Your task to perform on an android device: check google app version Image 0: 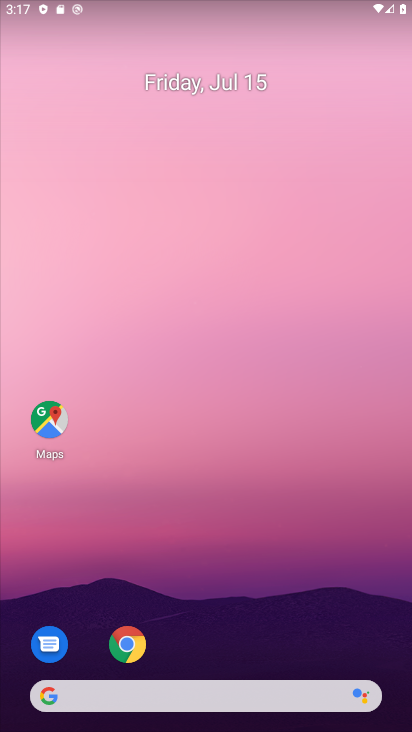
Step 0: drag from (213, 683) to (274, 107)
Your task to perform on an android device: check google app version Image 1: 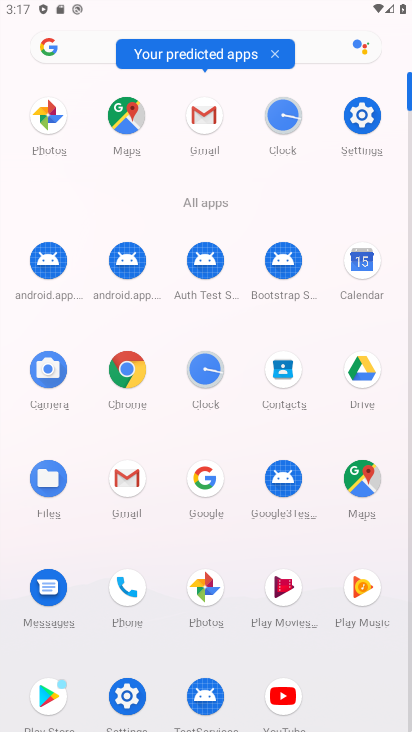
Step 1: drag from (135, 591) to (168, 340)
Your task to perform on an android device: check google app version Image 2: 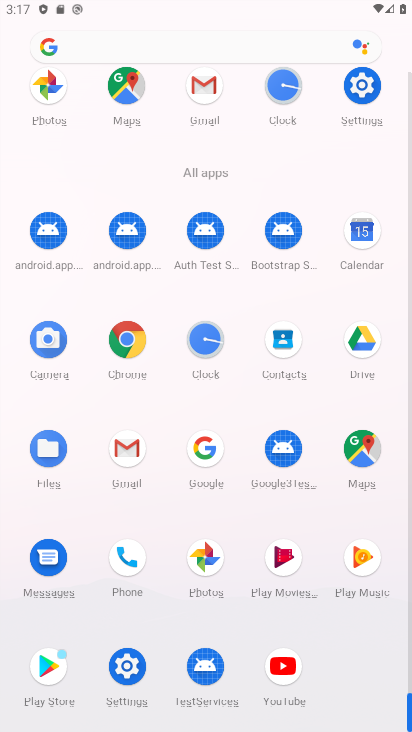
Step 2: click (129, 654)
Your task to perform on an android device: check google app version Image 3: 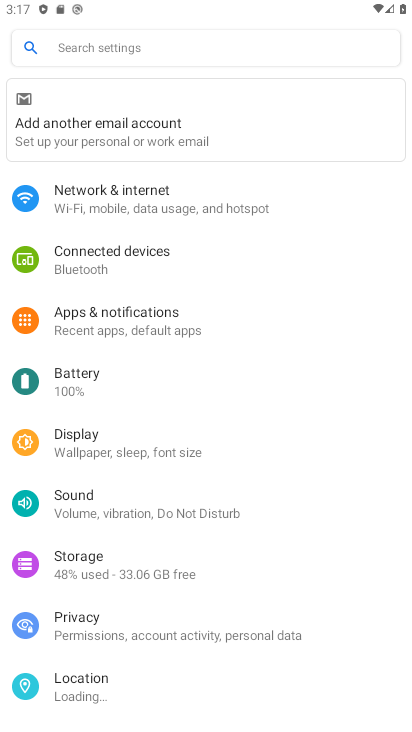
Step 3: click (119, 324)
Your task to perform on an android device: check google app version Image 4: 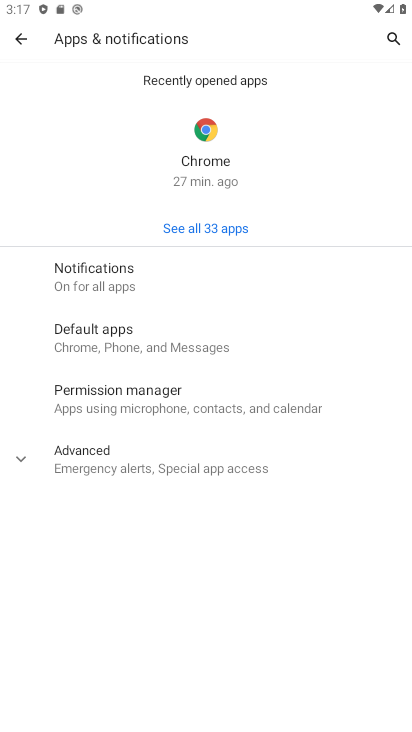
Step 4: click (197, 224)
Your task to perform on an android device: check google app version Image 5: 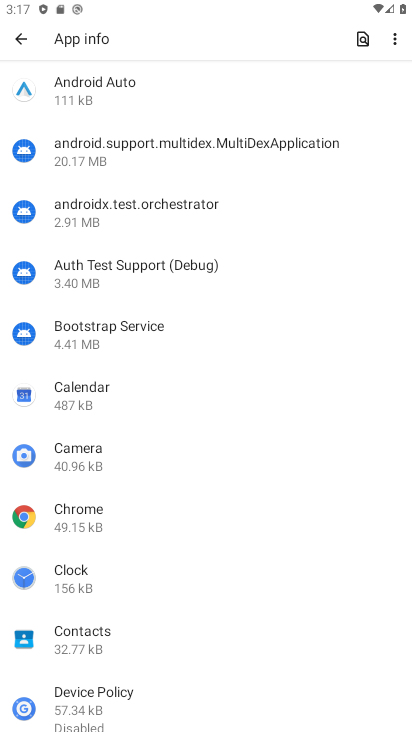
Step 5: drag from (126, 538) to (214, 143)
Your task to perform on an android device: check google app version Image 6: 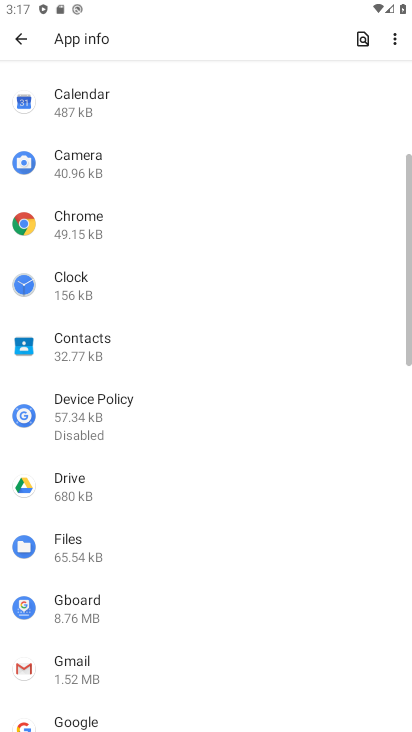
Step 6: drag from (127, 613) to (212, 153)
Your task to perform on an android device: check google app version Image 7: 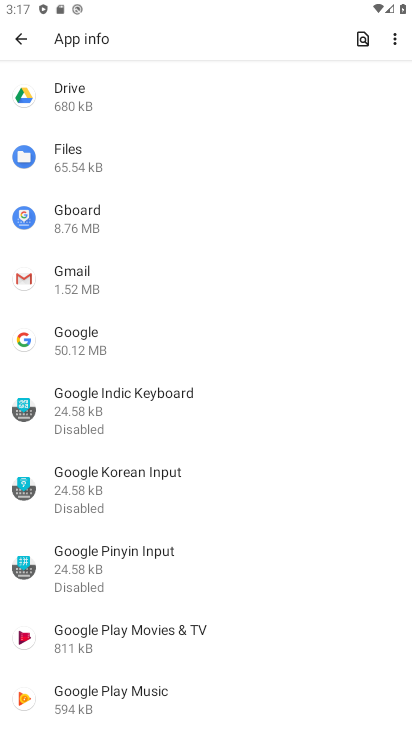
Step 7: click (122, 341)
Your task to perform on an android device: check google app version Image 8: 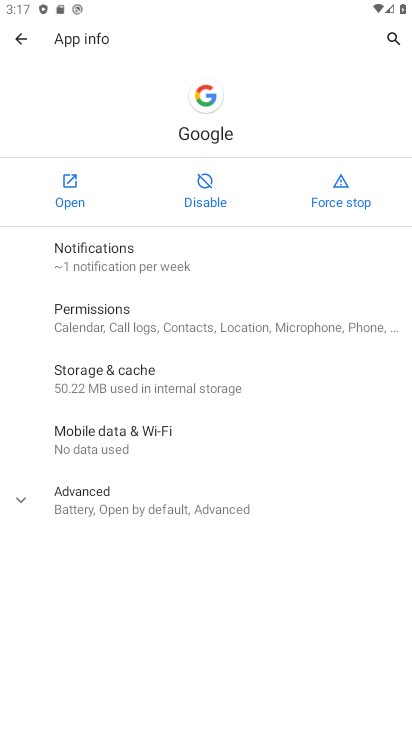
Step 8: click (105, 504)
Your task to perform on an android device: check google app version Image 9: 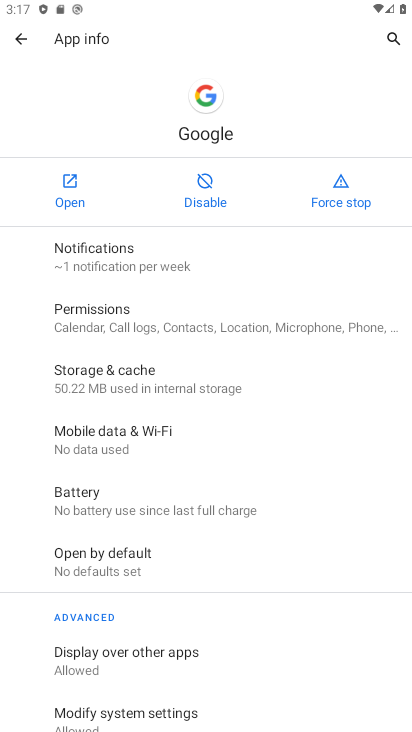
Step 9: task complete